Your task to perform on an android device: Go to eBay Image 0: 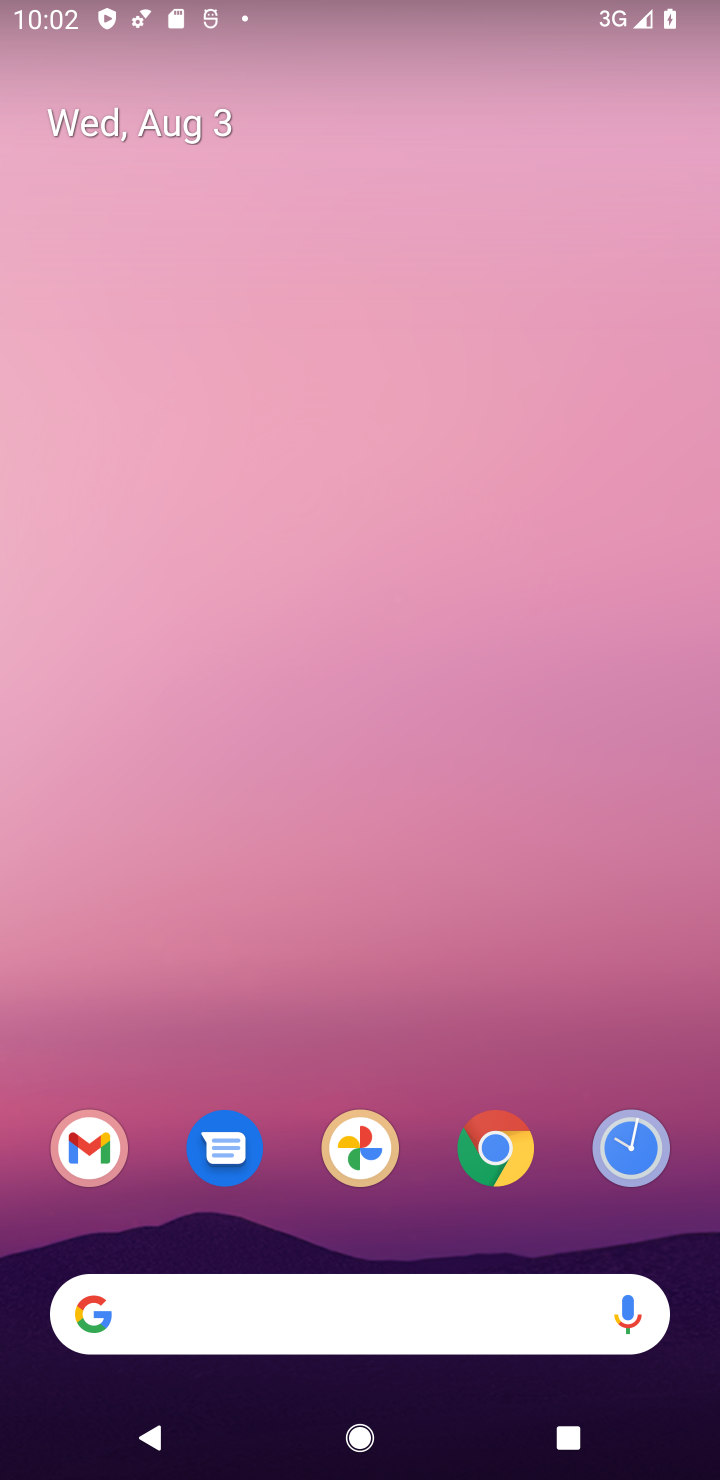
Step 0: click (503, 1145)
Your task to perform on an android device: Go to eBay Image 1: 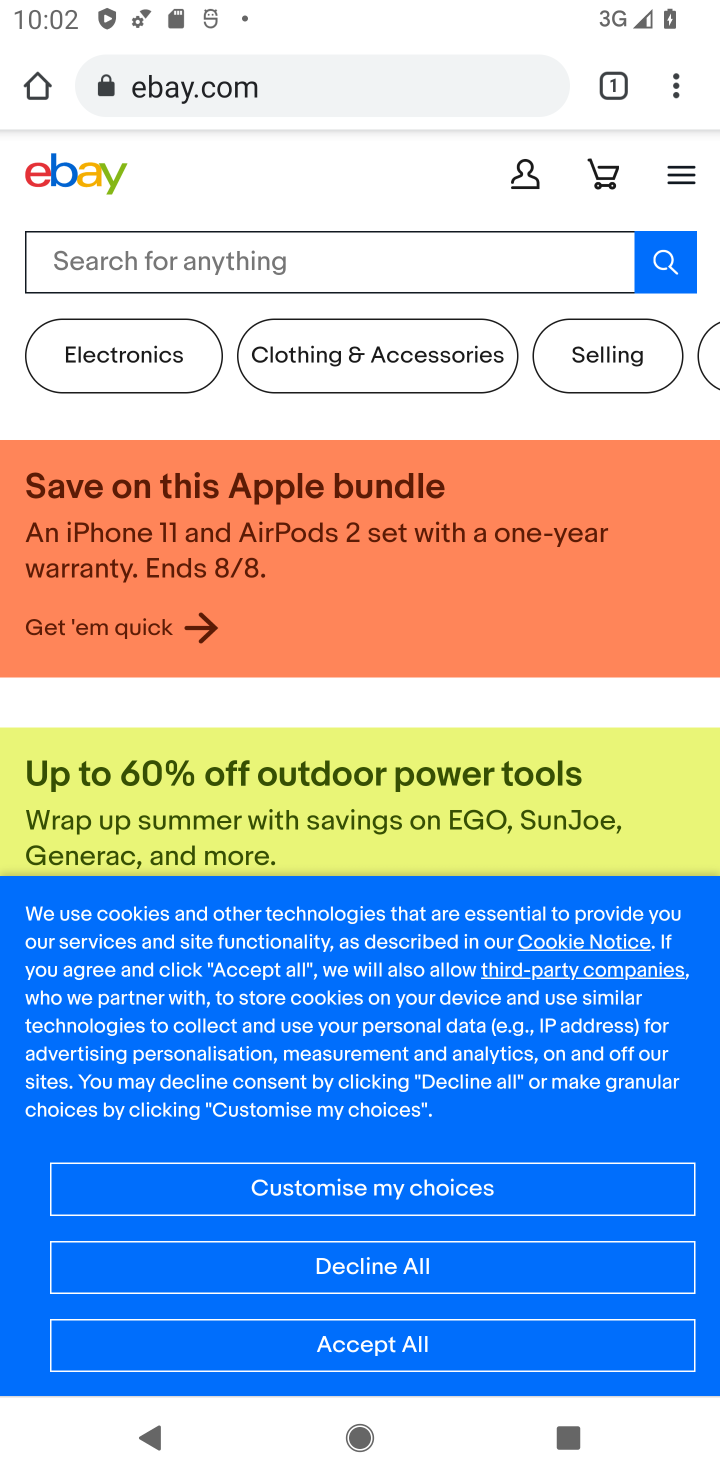
Step 1: task complete